Your task to perform on an android device: manage bookmarks in the chrome app Image 0: 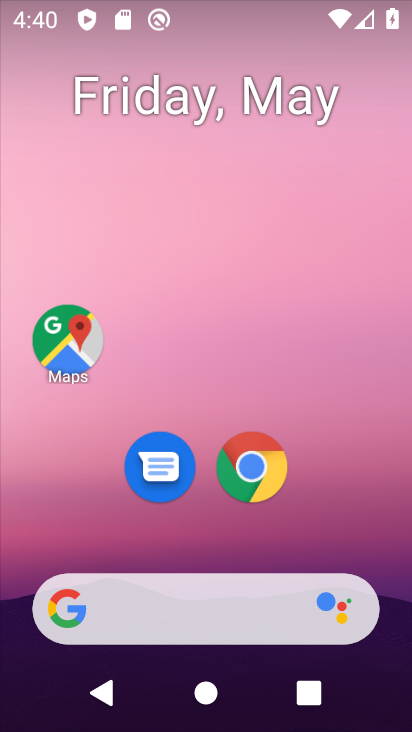
Step 0: drag from (328, 547) to (352, 168)
Your task to perform on an android device: manage bookmarks in the chrome app Image 1: 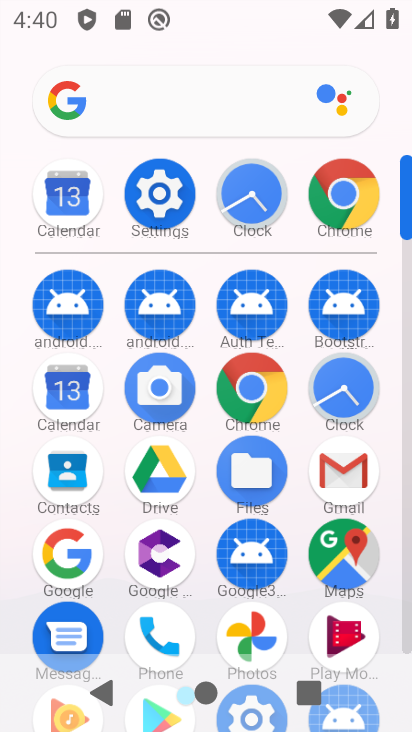
Step 1: click (344, 203)
Your task to perform on an android device: manage bookmarks in the chrome app Image 2: 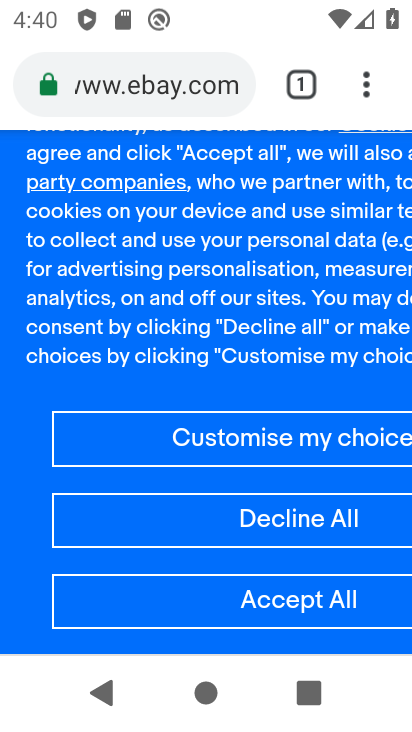
Step 2: click (371, 83)
Your task to perform on an android device: manage bookmarks in the chrome app Image 3: 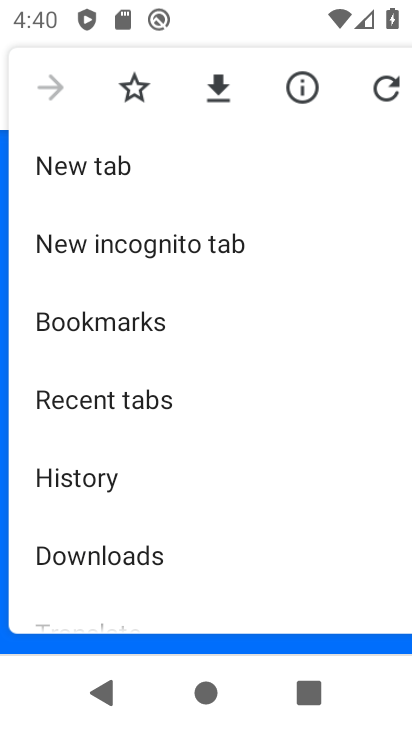
Step 3: drag from (179, 517) to (263, 104)
Your task to perform on an android device: manage bookmarks in the chrome app Image 4: 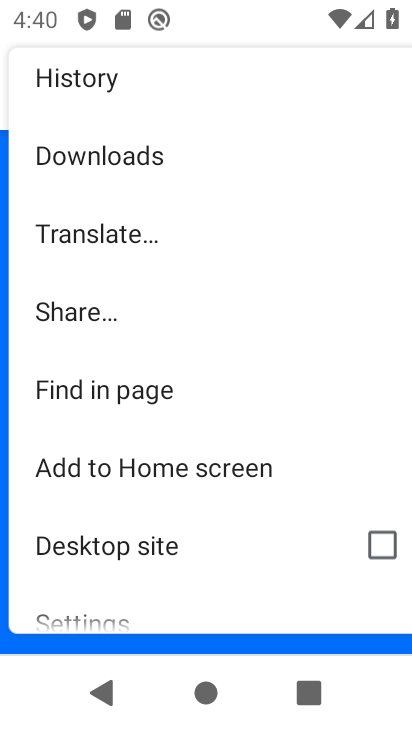
Step 4: drag from (131, 533) to (244, 200)
Your task to perform on an android device: manage bookmarks in the chrome app Image 5: 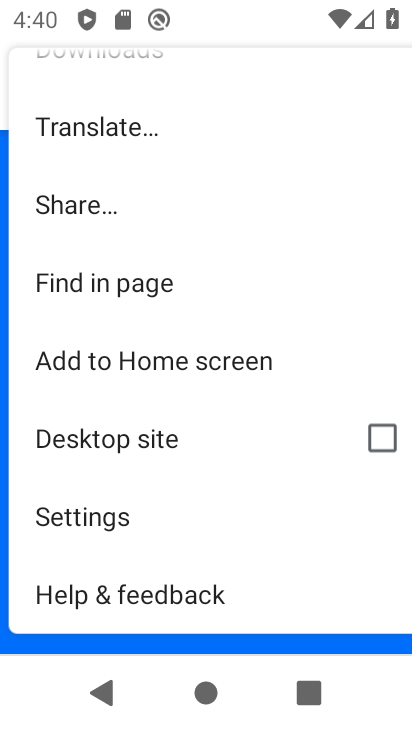
Step 5: click (102, 502)
Your task to perform on an android device: manage bookmarks in the chrome app Image 6: 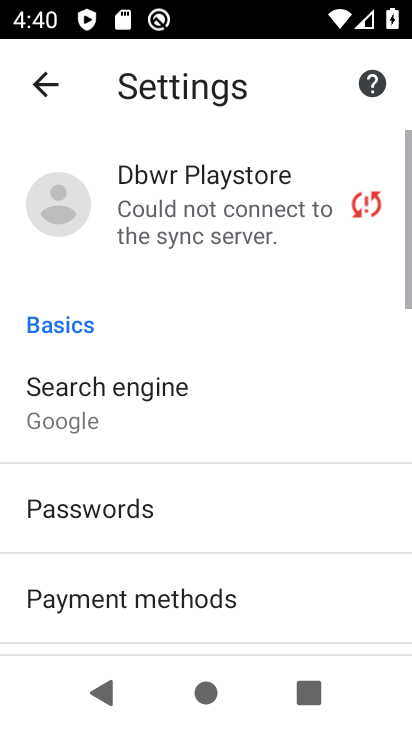
Step 6: drag from (129, 616) to (336, 226)
Your task to perform on an android device: manage bookmarks in the chrome app Image 7: 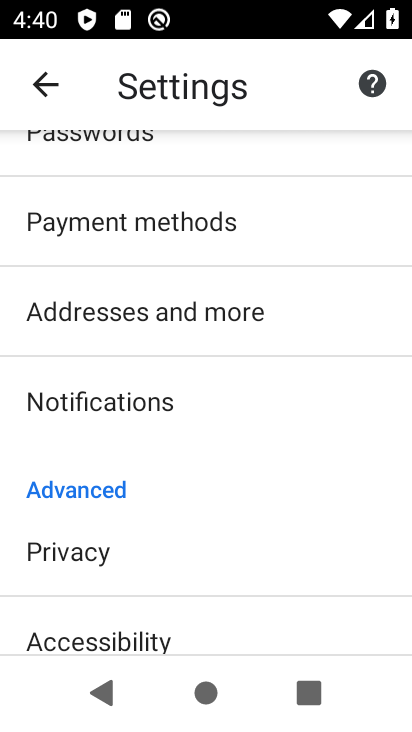
Step 7: drag from (254, 584) to (307, 248)
Your task to perform on an android device: manage bookmarks in the chrome app Image 8: 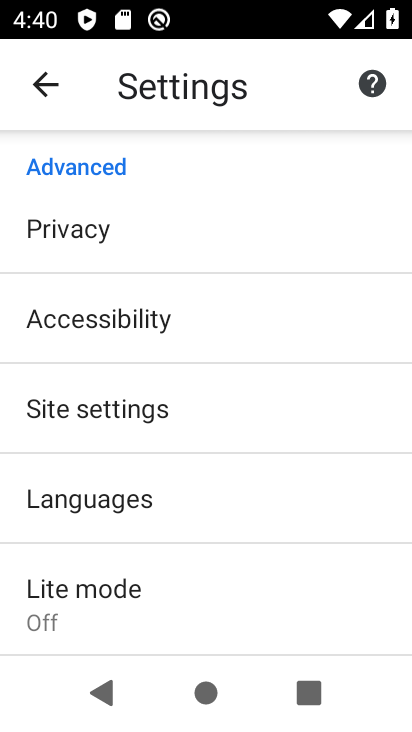
Step 8: click (155, 411)
Your task to perform on an android device: manage bookmarks in the chrome app Image 9: 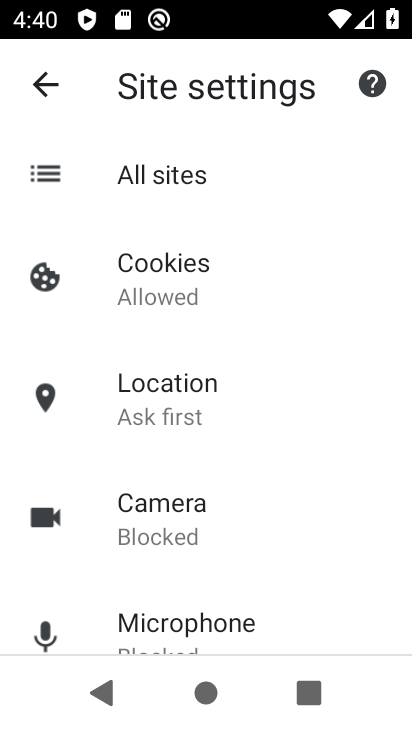
Step 9: click (51, 88)
Your task to perform on an android device: manage bookmarks in the chrome app Image 10: 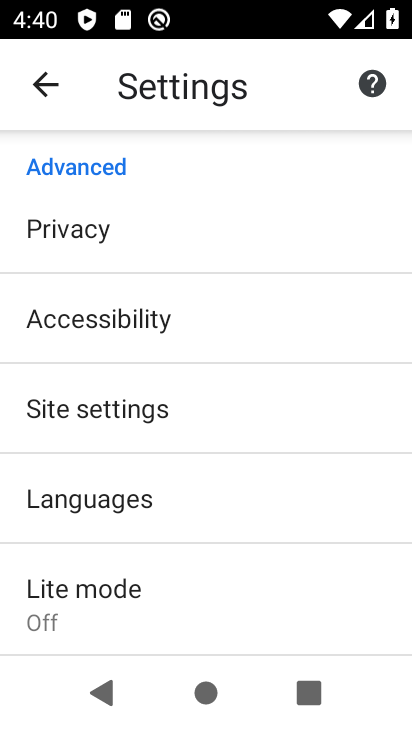
Step 10: click (34, 81)
Your task to perform on an android device: manage bookmarks in the chrome app Image 11: 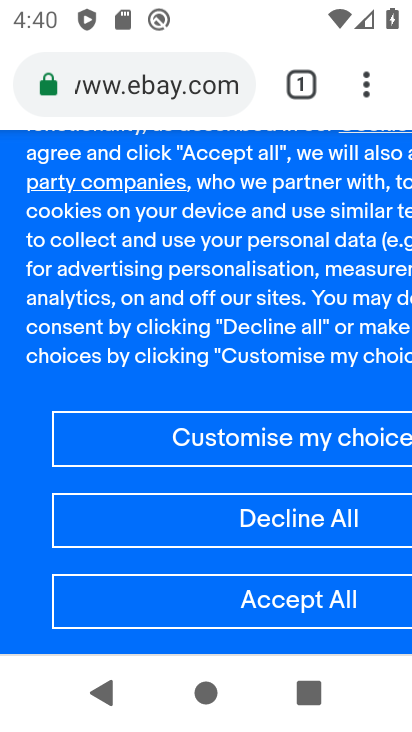
Step 11: task complete